Your task to perform on an android device: open device folders in google photos Image 0: 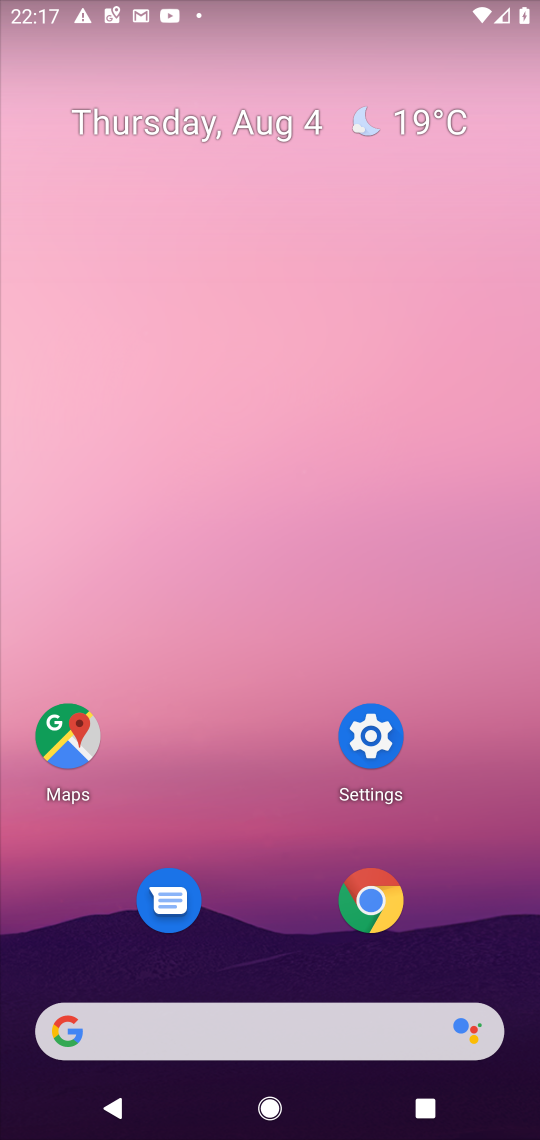
Step 0: press home button
Your task to perform on an android device: open device folders in google photos Image 1: 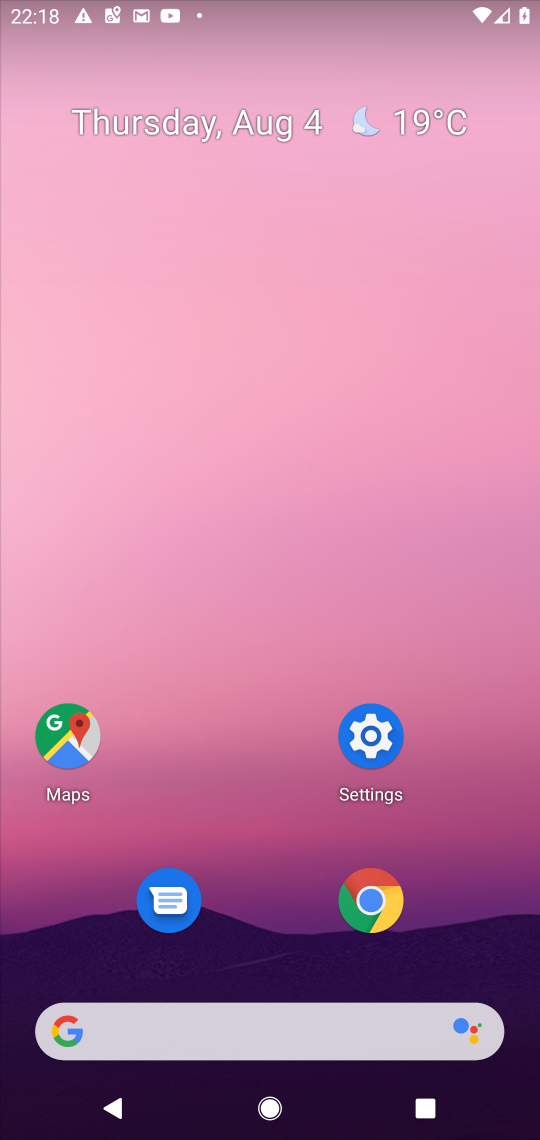
Step 1: click (340, 113)
Your task to perform on an android device: open device folders in google photos Image 2: 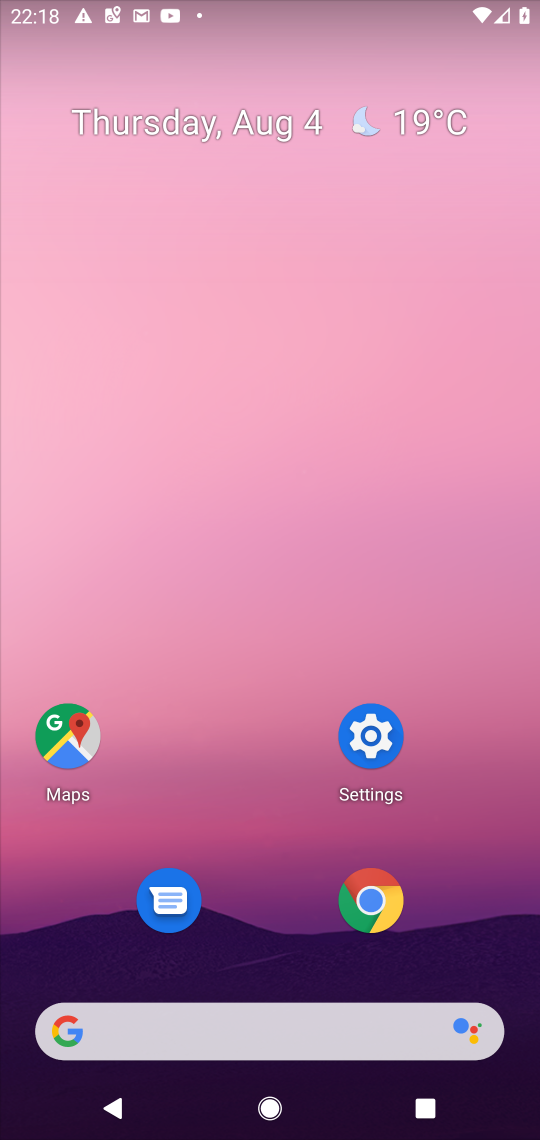
Step 2: drag from (333, 1009) to (402, 109)
Your task to perform on an android device: open device folders in google photos Image 3: 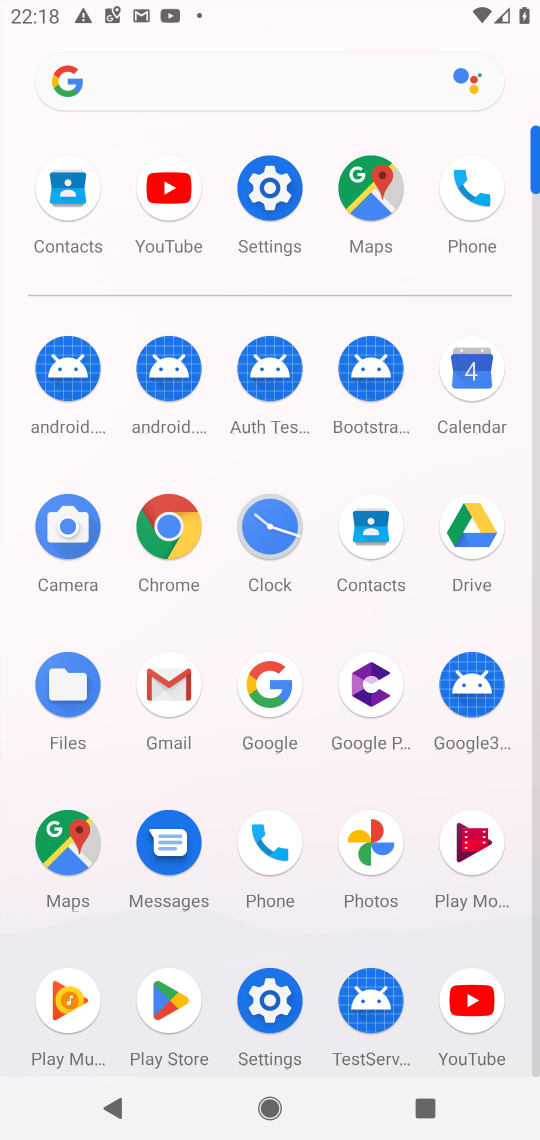
Step 3: click (377, 839)
Your task to perform on an android device: open device folders in google photos Image 4: 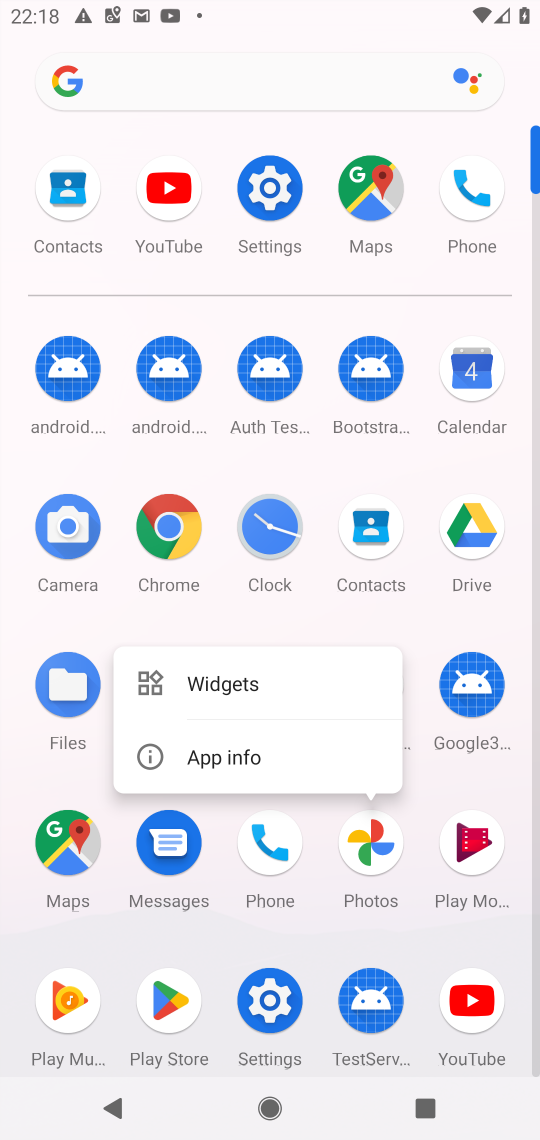
Step 4: click (377, 839)
Your task to perform on an android device: open device folders in google photos Image 5: 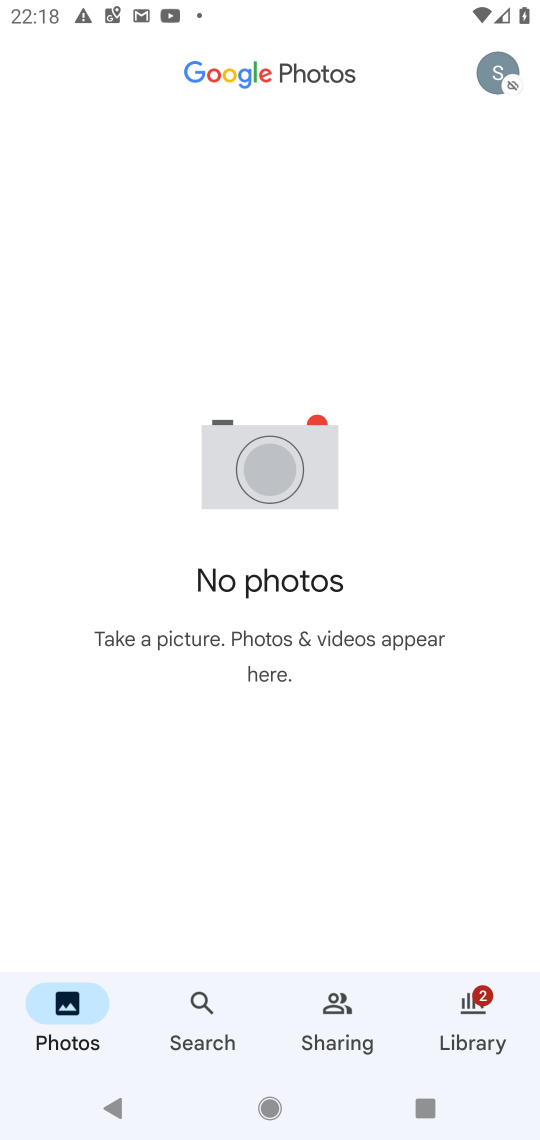
Step 5: click (462, 1036)
Your task to perform on an android device: open device folders in google photos Image 6: 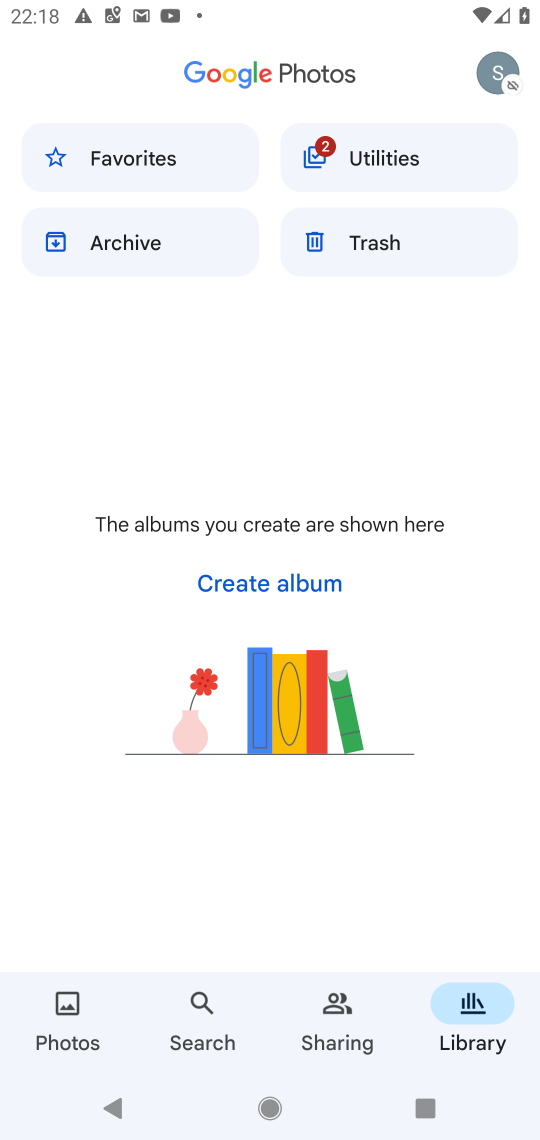
Step 6: click (135, 152)
Your task to perform on an android device: open device folders in google photos Image 7: 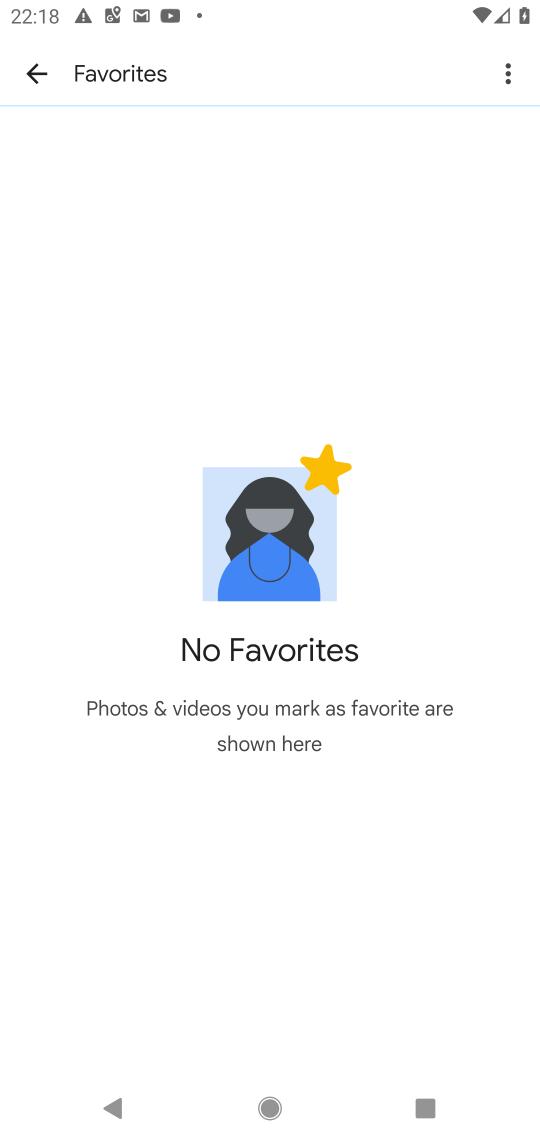
Step 7: click (32, 66)
Your task to perform on an android device: open device folders in google photos Image 8: 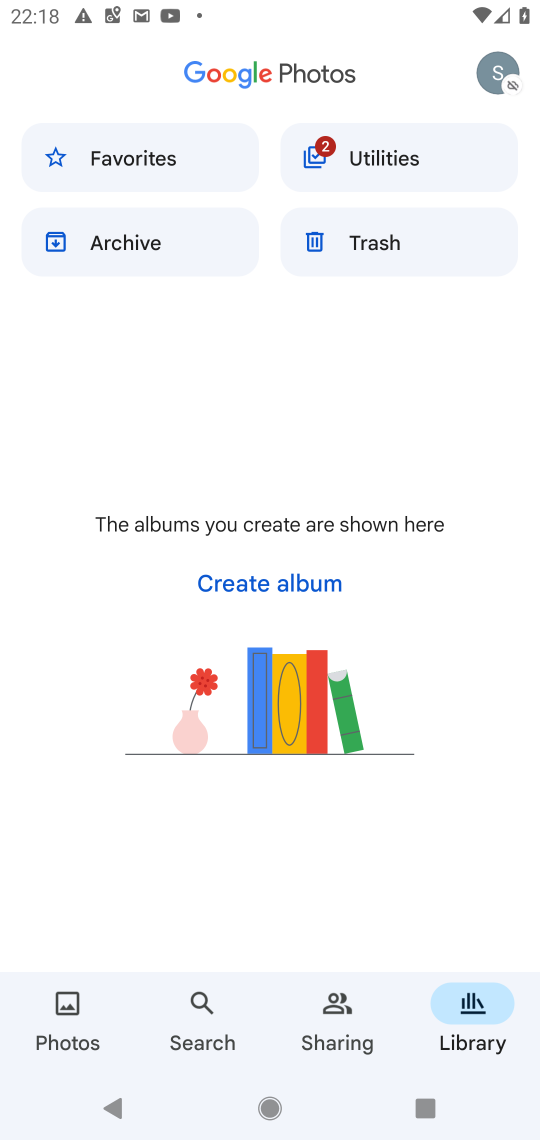
Step 8: task complete